Your task to perform on an android device: Do I have any events this weekend? Image 0: 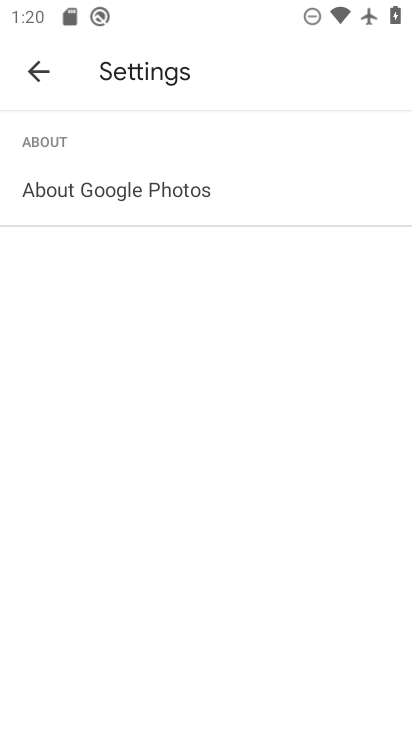
Step 0: click (33, 65)
Your task to perform on an android device: Do I have any events this weekend? Image 1: 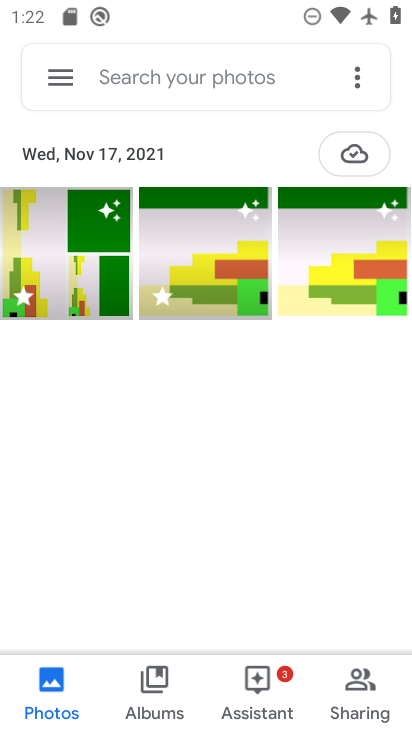
Step 1: click (56, 73)
Your task to perform on an android device: Do I have any events this weekend? Image 2: 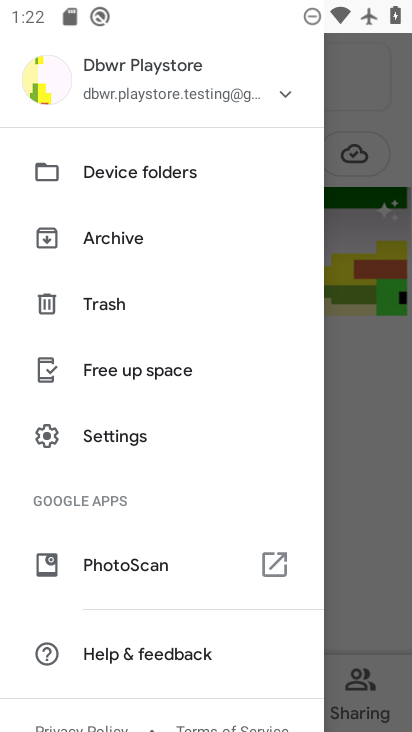
Step 2: press home button
Your task to perform on an android device: Do I have any events this weekend? Image 3: 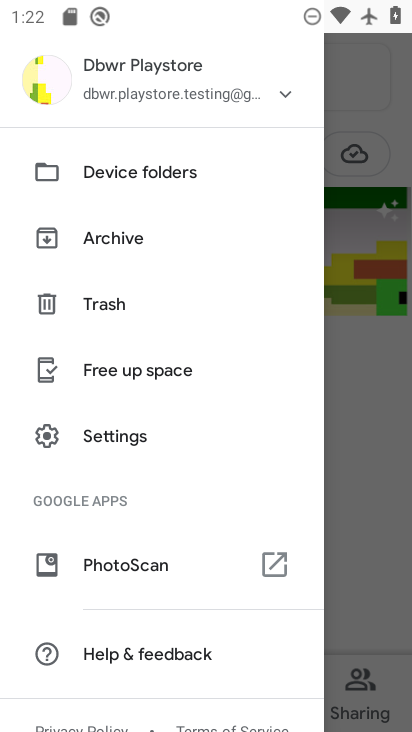
Step 3: press home button
Your task to perform on an android device: Do I have any events this weekend? Image 4: 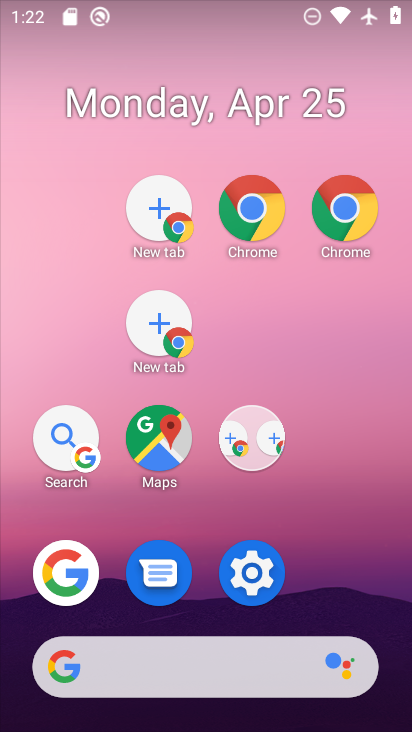
Step 4: drag from (382, 660) to (169, 173)
Your task to perform on an android device: Do I have any events this weekend? Image 5: 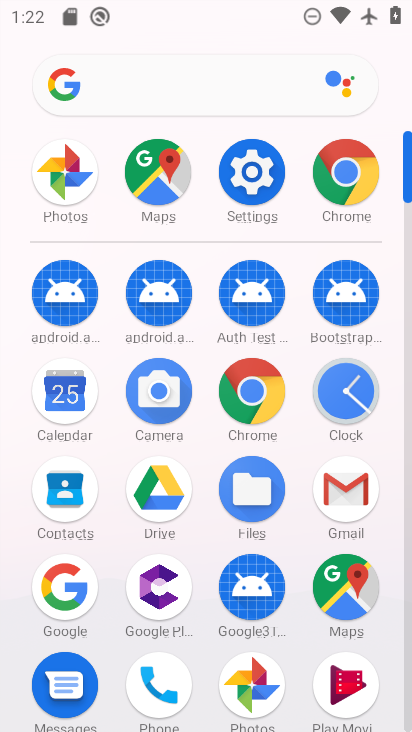
Step 5: drag from (66, 406) to (48, 342)
Your task to perform on an android device: Do I have any events this weekend? Image 6: 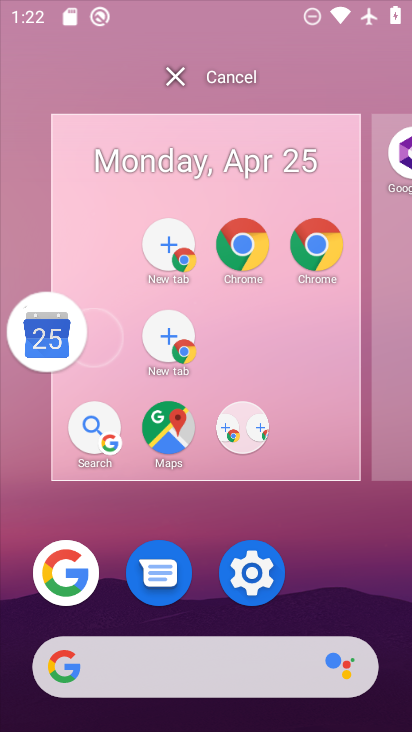
Step 6: click (36, 265)
Your task to perform on an android device: Do I have any events this weekend? Image 7: 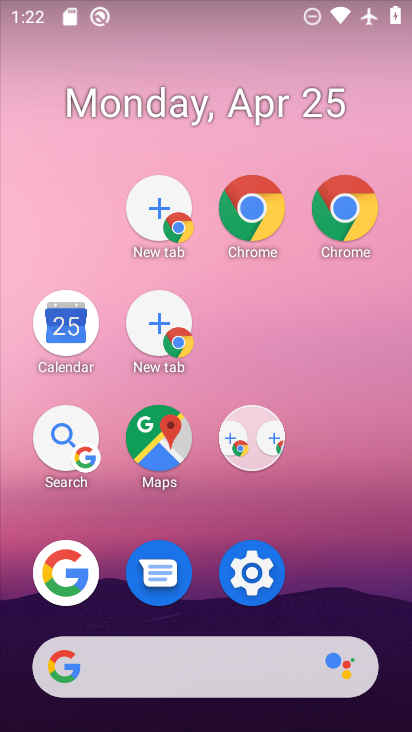
Step 7: drag from (61, 322) to (75, 367)
Your task to perform on an android device: Do I have any events this weekend? Image 8: 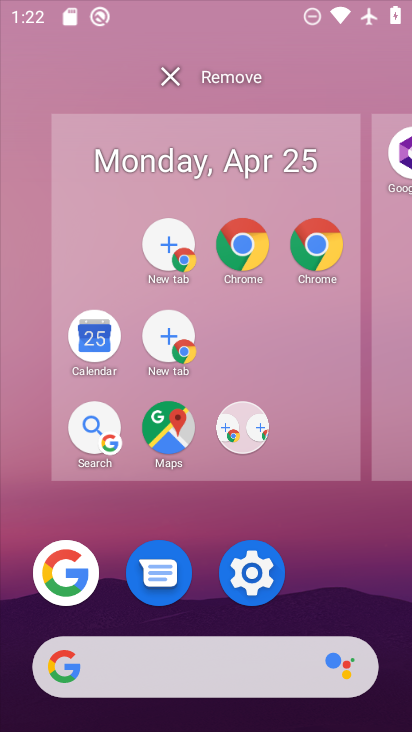
Step 8: click (76, 327)
Your task to perform on an android device: Do I have any events this weekend? Image 9: 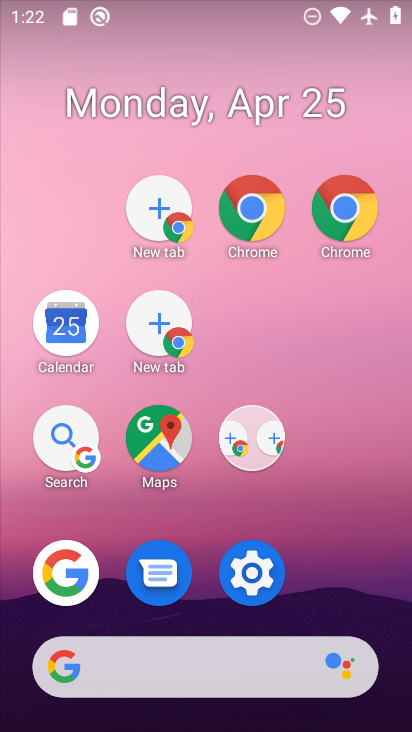
Step 9: click (73, 322)
Your task to perform on an android device: Do I have any events this weekend? Image 10: 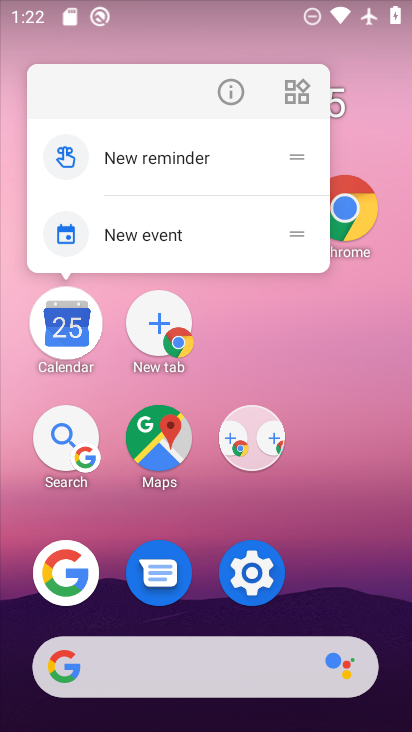
Step 10: click (72, 320)
Your task to perform on an android device: Do I have any events this weekend? Image 11: 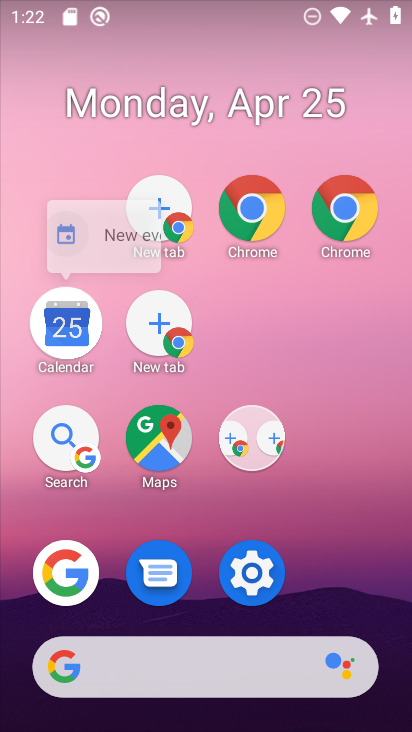
Step 11: click (68, 318)
Your task to perform on an android device: Do I have any events this weekend? Image 12: 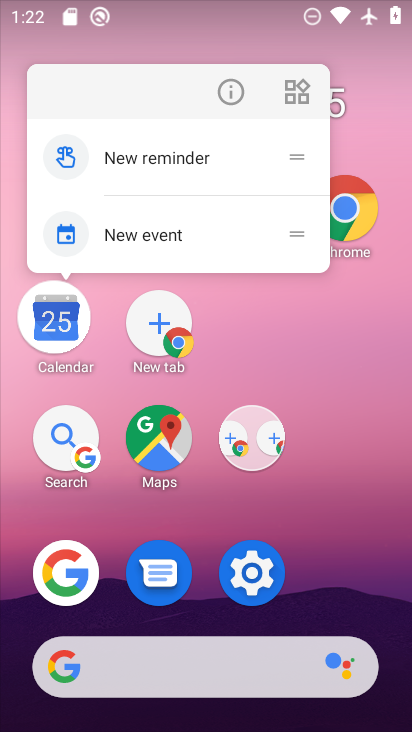
Step 12: click (55, 311)
Your task to perform on an android device: Do I have any events this weekend? Image 13: 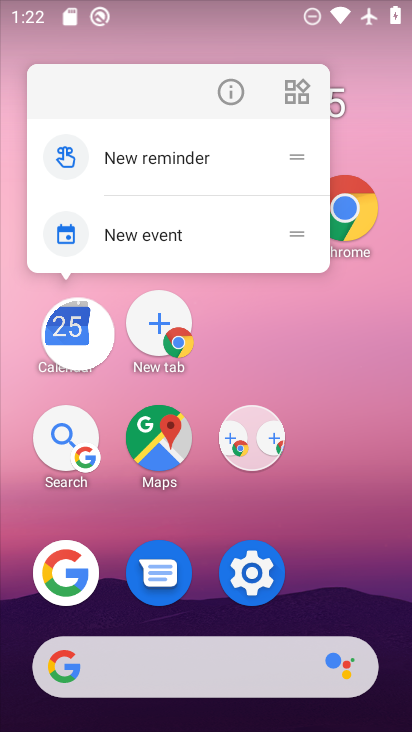
Step 13: click (61, 335)
Your task to perform on an android device: Do I have any events this weekend? Image 14: 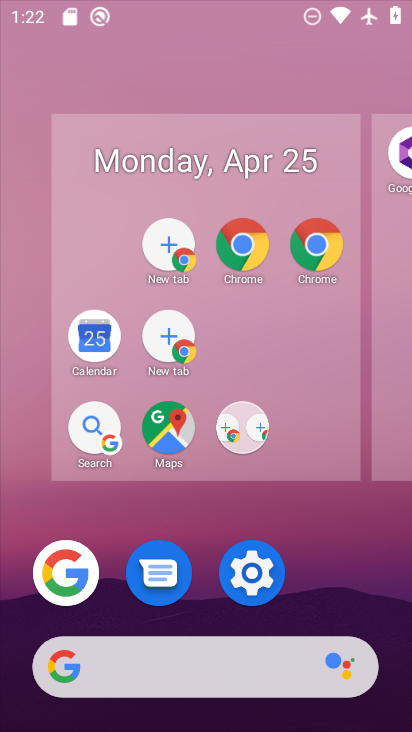
Step 14: drag from (17, 250) to (1, 164)
Your task to perform on an android device: Do I have any events this weekend? Image 15: 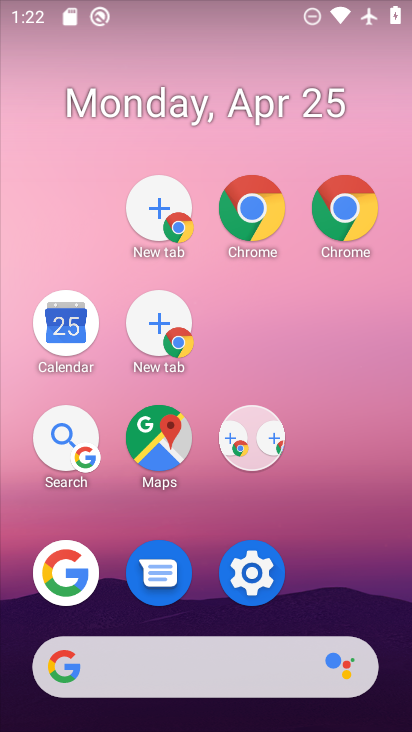
Step 15: drag from (150, 211) to (96, 24)
Your task to perform on an android device: Do I have any events this weekend? Image 16: 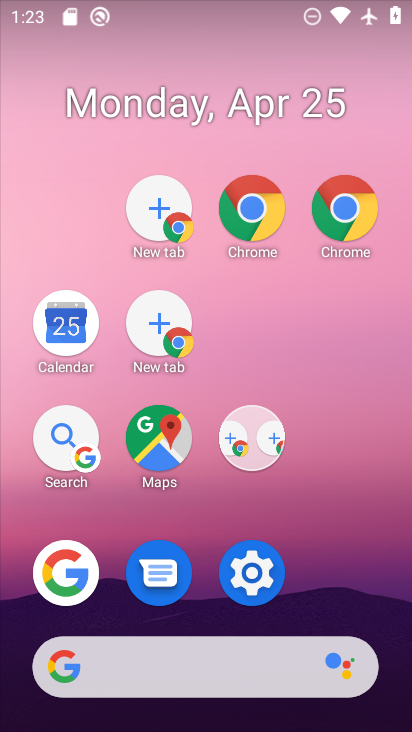
Step 16: click (78, 330)
Your task to perform on an android device: Do I have any events this weekend? Image 17: 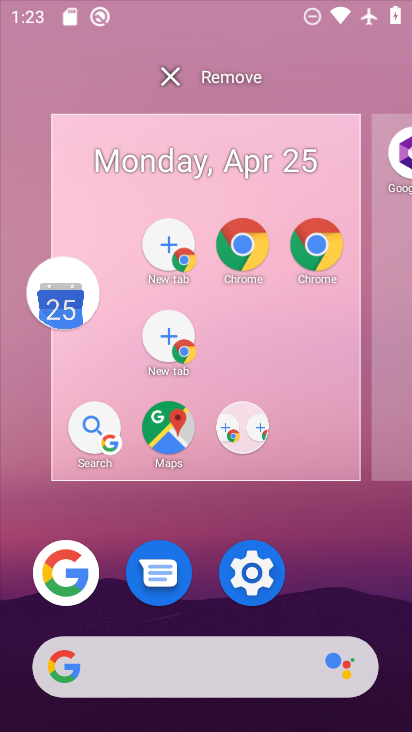
Step 17: click (56, 325)
Your task to perform on an android device: Do I have any events this weekend? Image 18: 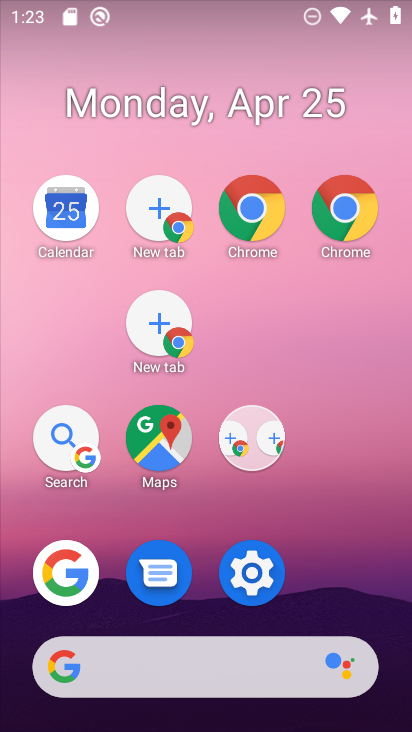
Step 18: click (66, 208)
Your task to perform on an android device: Do I have any events this weekend? Image 19: 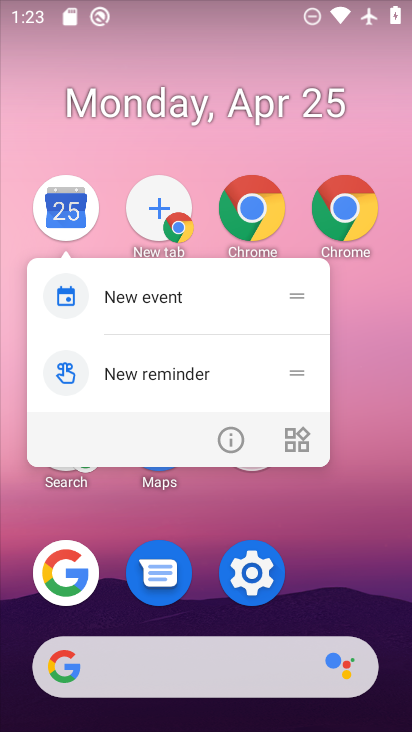
Step 19: click (58, 202)
Your task to perform on an android device: Do I have any events this weekend? Image 20: 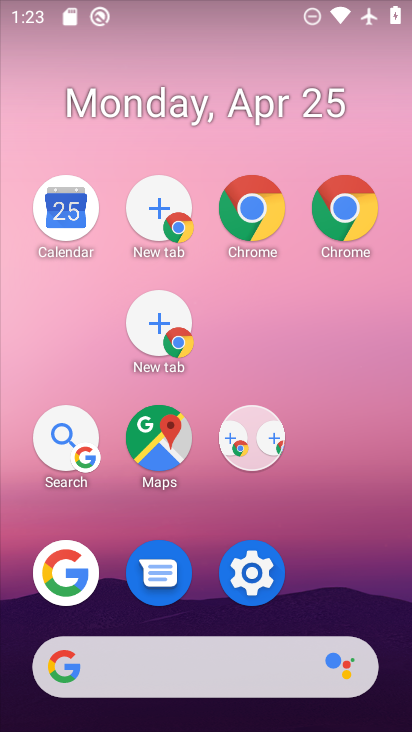
Step 20: click (69, 209)
Your task to perform on an android device: Do I have any events this weekend? Image 21: 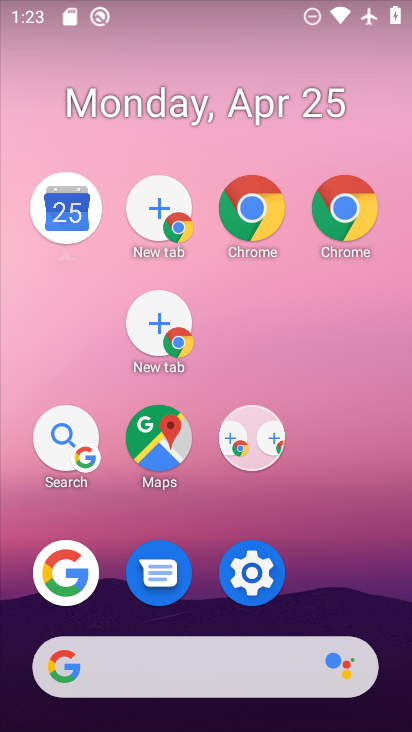
Step 21: click (72, 205)
Your task to perform on an android device: Do I have any events this weekend? Image 22: 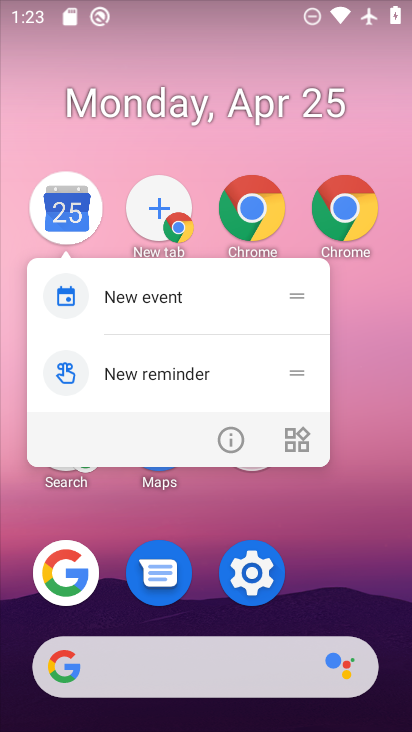
Step 22: click (71, 194)
Your task to perform on an android device: Do I have any events this weekend? Image 23: 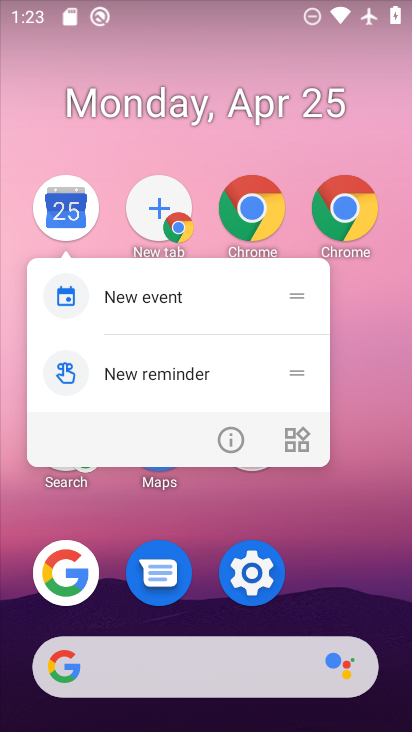
Step 23: click (70, 193)
Your task to perform on an android device: Do I have any events this weekend? Image 24: 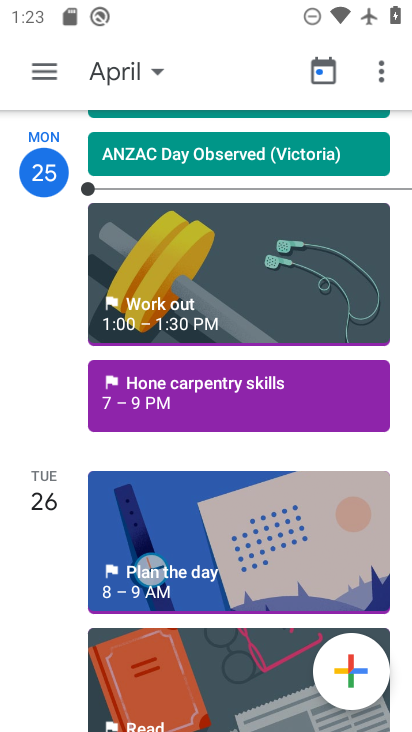
Step 24: click (158, 73)
Your task to perform on an android device: Do I have any events this weekend? Image 25: 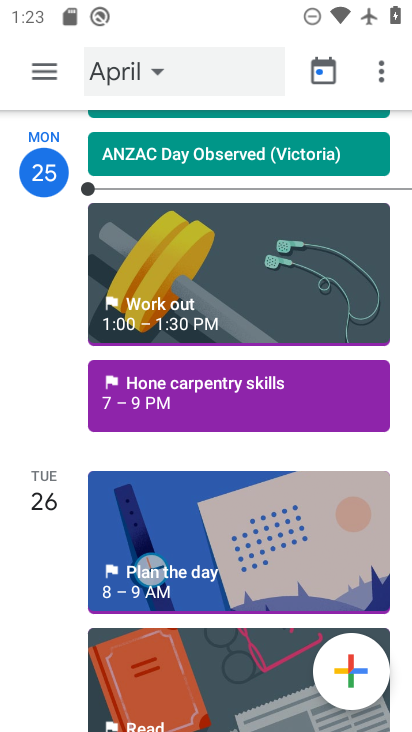
Step 25: task complete